Your task to perform on an android device: Open the calendar app, open the side menu, and click the "Day" option Image 0: 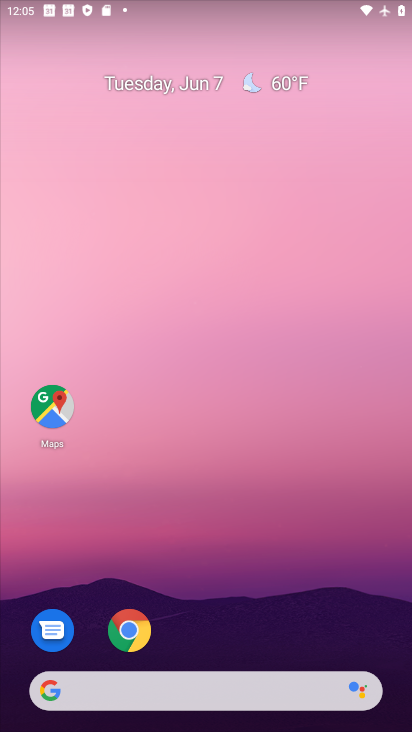
Step 0: drag from (382, 587) to (280, 87)
Your task to perform on an android device: Open the calendar app, open the side menu, and click the "Day" option Image 1: 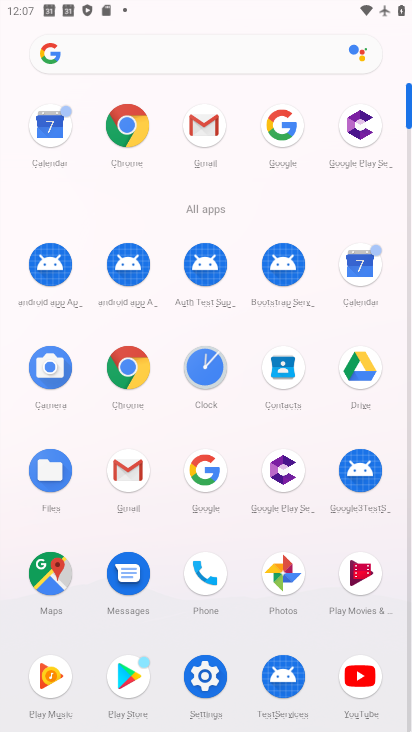
Step 1: click (379, 263)
Your task to perform on an android device: Open the calendar app, open the side menu, and click the "Day" option Image 2: 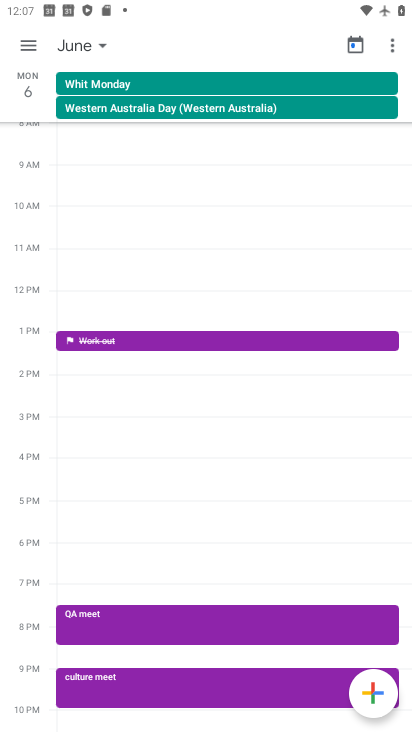
Step 2: click (25, 45)
Your task to perform on an android device: Open the calendar app, open the side menu, and click the "Day" option Image 3: 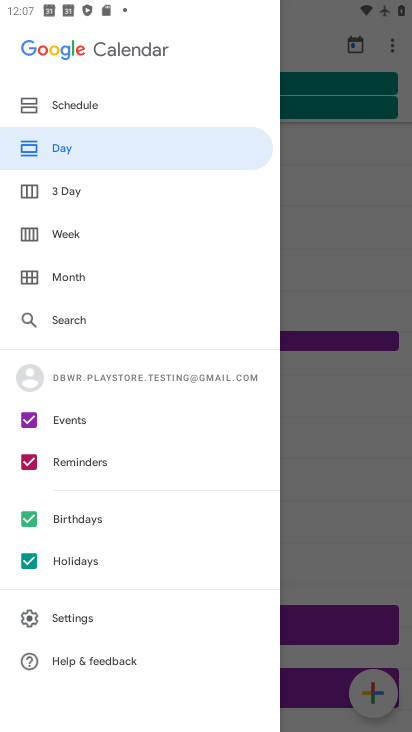
Step 3: click (129, 150)
Your task to perform on an android device: Open the calendar app, open the side menu, and click the "Day" option Image 4: 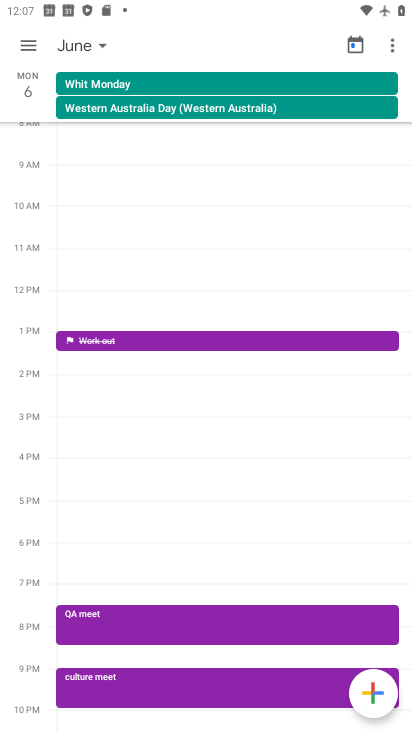
Step 4: task complete